Your task to perform on an android device: What's the weather? Image 0: 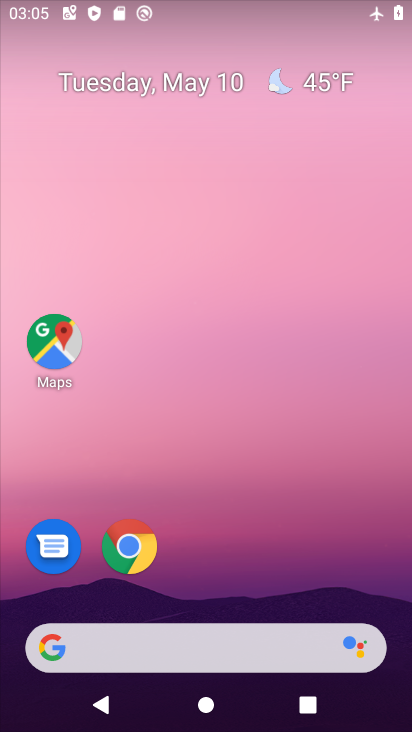
Step 0: drag from (267, 564) to (245, 22)
Your task to perform on an android device: What's the weather? Image 1: 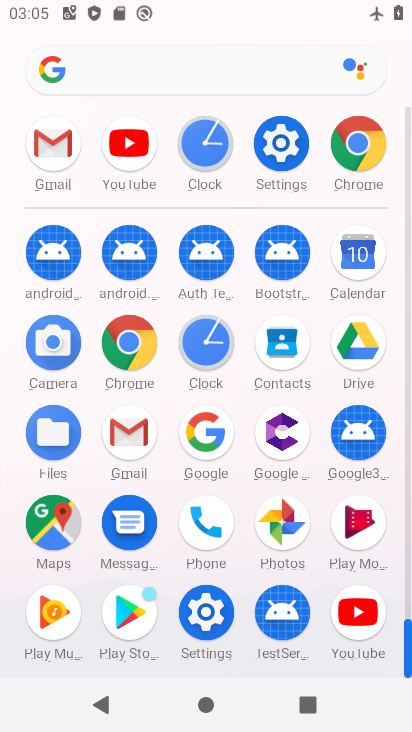
Step 1: drag from (11, 561) to (9, 218)
Your task to perform on an android device: What's the weather? Image 2: 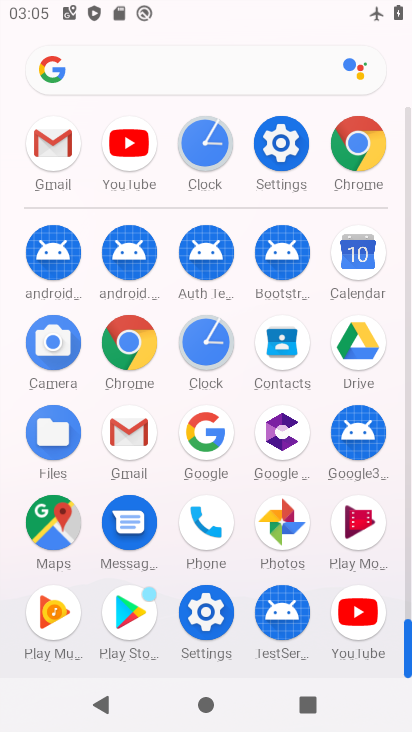
Step 2: click (132, 340)
Your task to perform on an android device: What's the weather? Image 3: 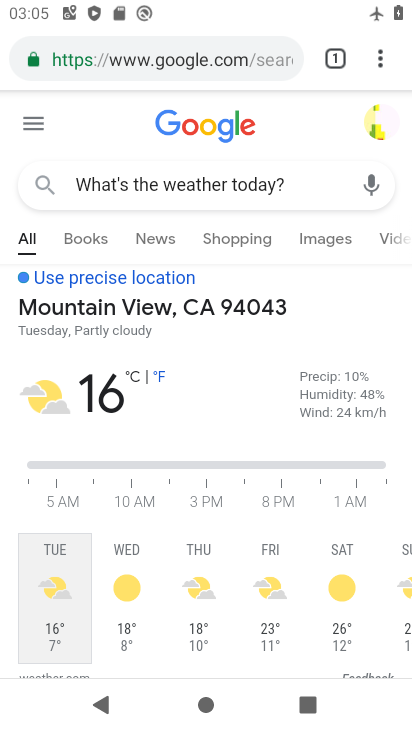
Step 3: task complete